Your task to perform on an android device: find snoozed emails in the gmail app Image 0: 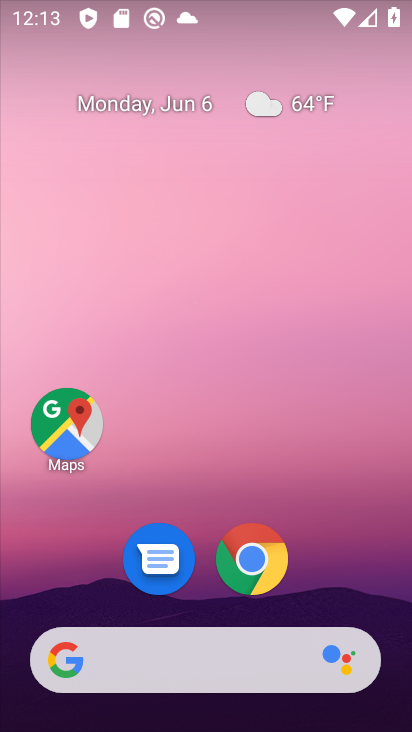
Step 0: drag from (263, 664) to (270, 212)
Your task to perform on an android device: find snoozed emails in the gmail app Image 1: 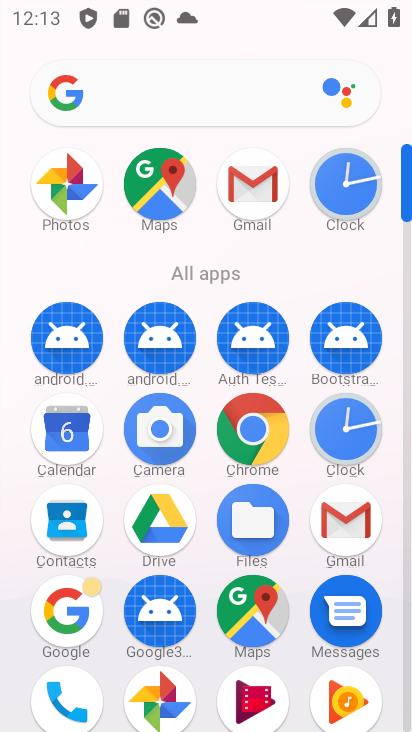
Step 1: click (358, 523)
Your task to perform on an android device: find snoozed emails in the gmail app Image 2: 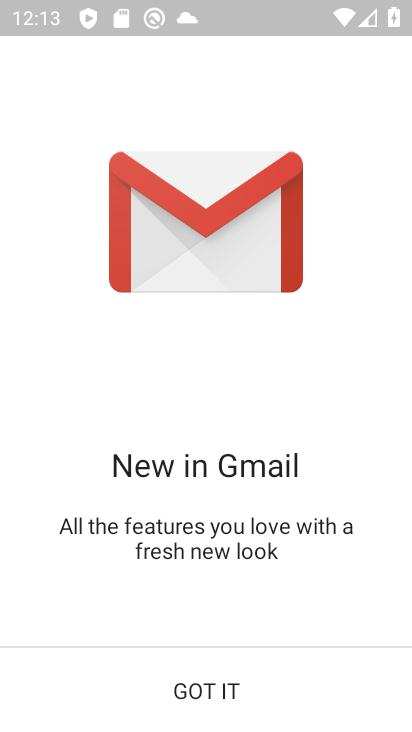
Step 2: click (204, 681)
Your task to perform on an android device: find snoozed emails in the gmail app Image 3: 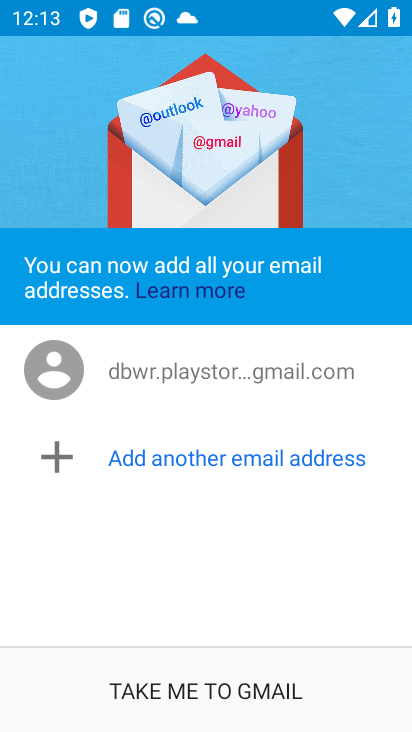
Step 3: click (210, 681)
Your task to perform on an android device: find snoozed emails in the gmail app Image 4: 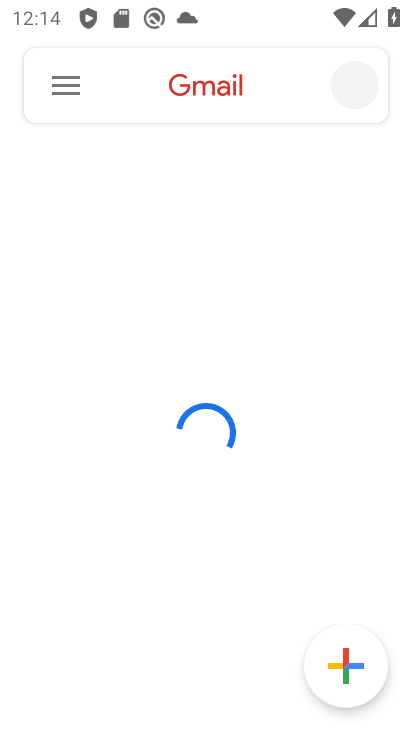
Step 4: click (54, 101)
Your task to perform on an android device: find snoozed emails in the gmail app Image 5: 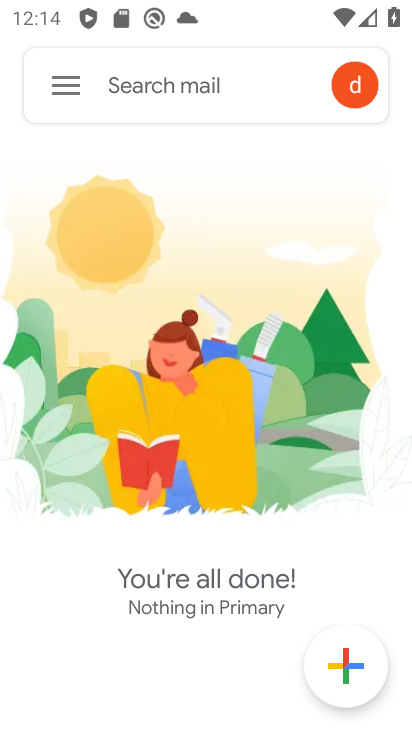
Step 5: click (56, 100)
Your task to perform on an android device: find snoozed emails in the gmail app Image 6: 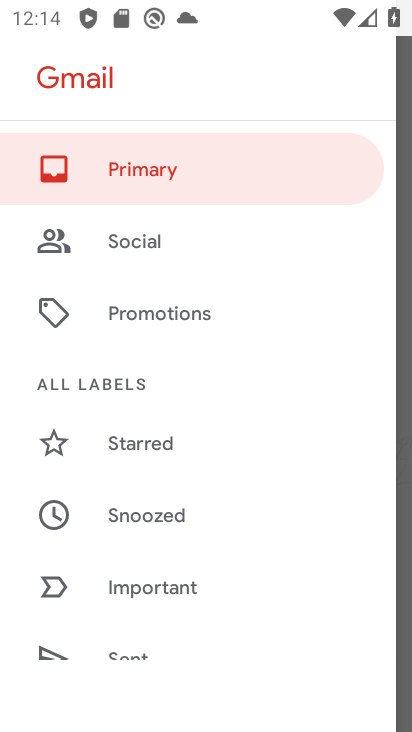
Step 6: click (170, 513)
Your task to perform on an android device: find snoozed emails in the gmail app Image 7: 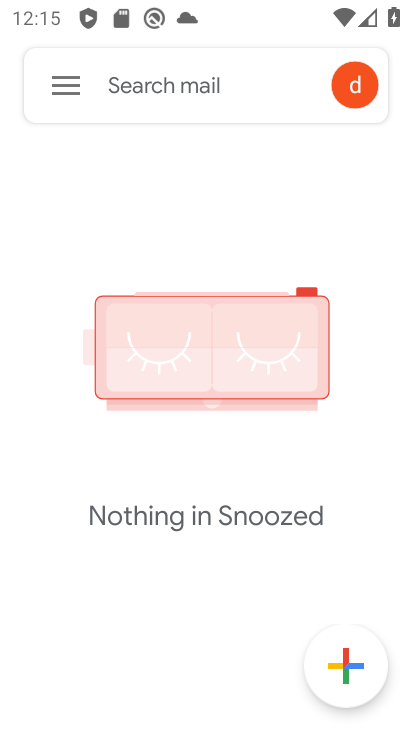
Step 7: task complete